Your task to perform on an android device: Set an alarm for 7pm Image 0: 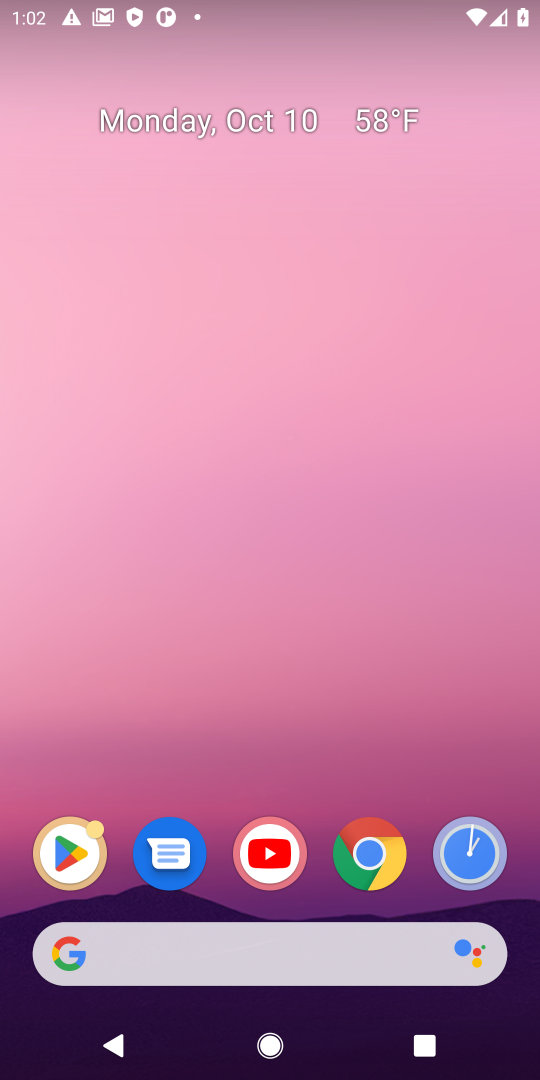
Step 0: drag from (270, 932) to (44, 17)
Your task to perform on an android device: Set an alarm for 7pm Image 1: 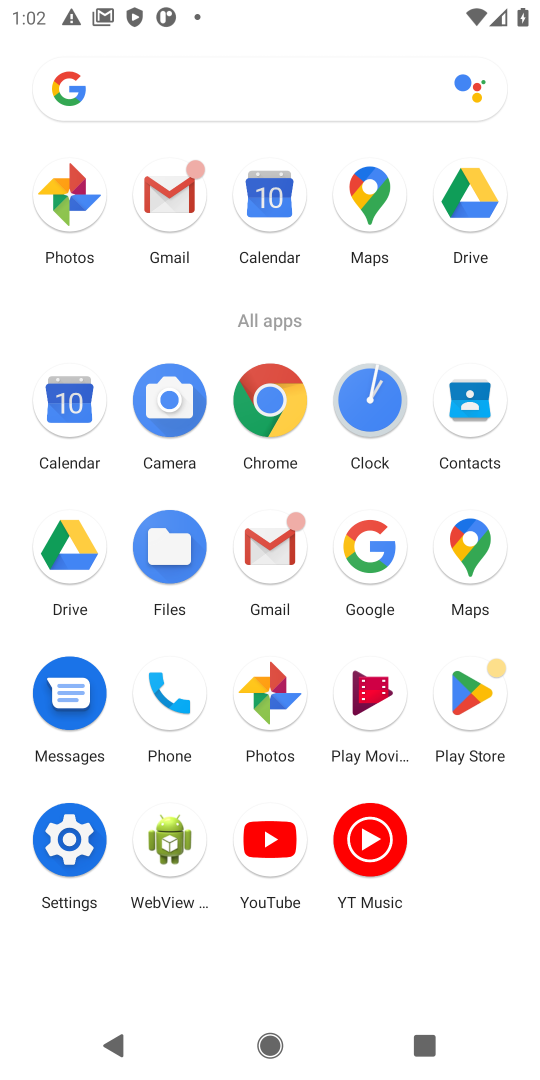
Step 1: click (381, 405)
Your task to perform on an android device: Set an alarm for 7pm Image 2: 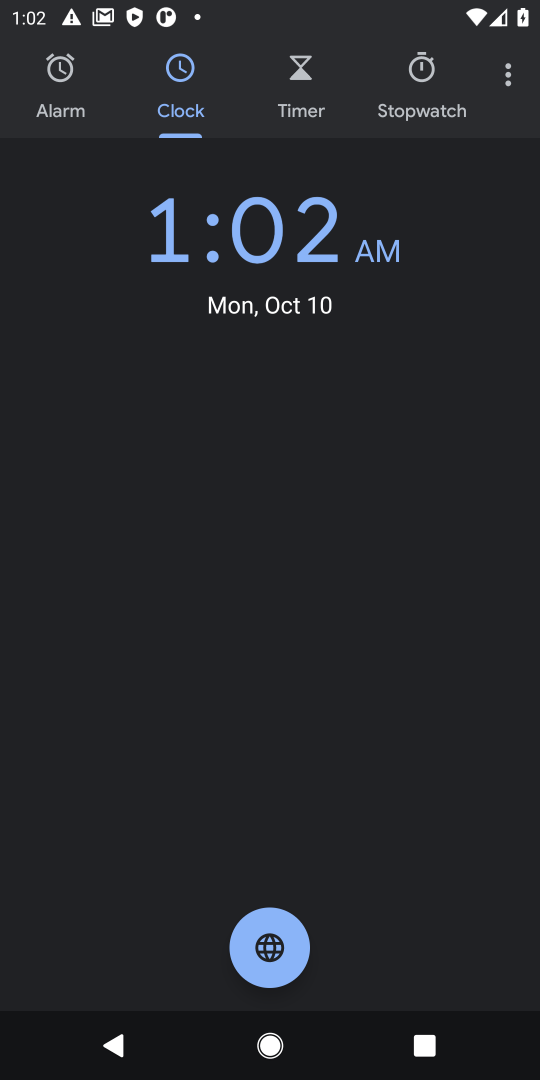
Step 2: click (58, 78)
Your task to perform on an android device: Set an alarm for 7pm Image 3: 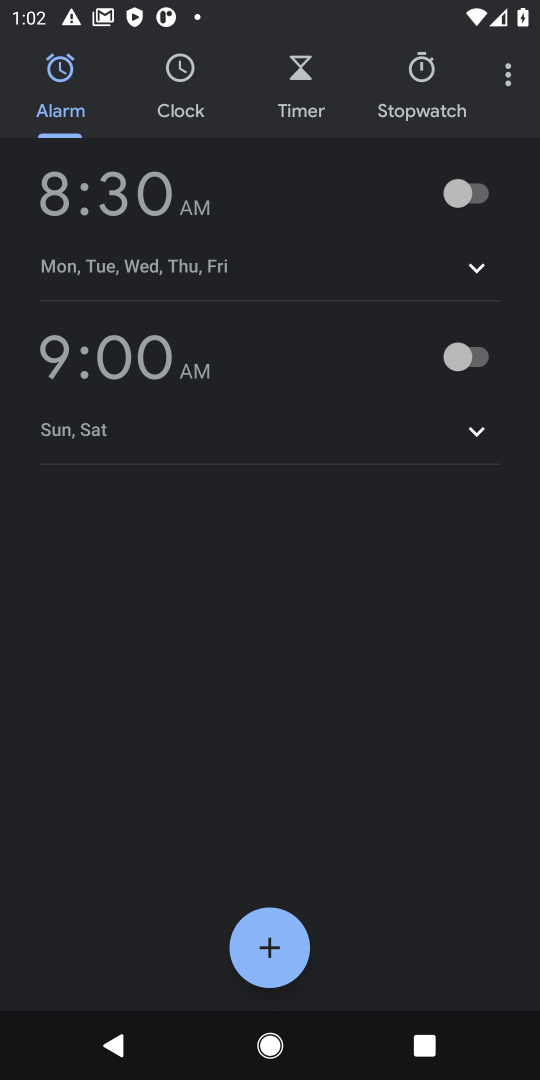
Step 3: click (260, 971)
Your task to perform on an android device: Set an alarm for 7pm Image 4: 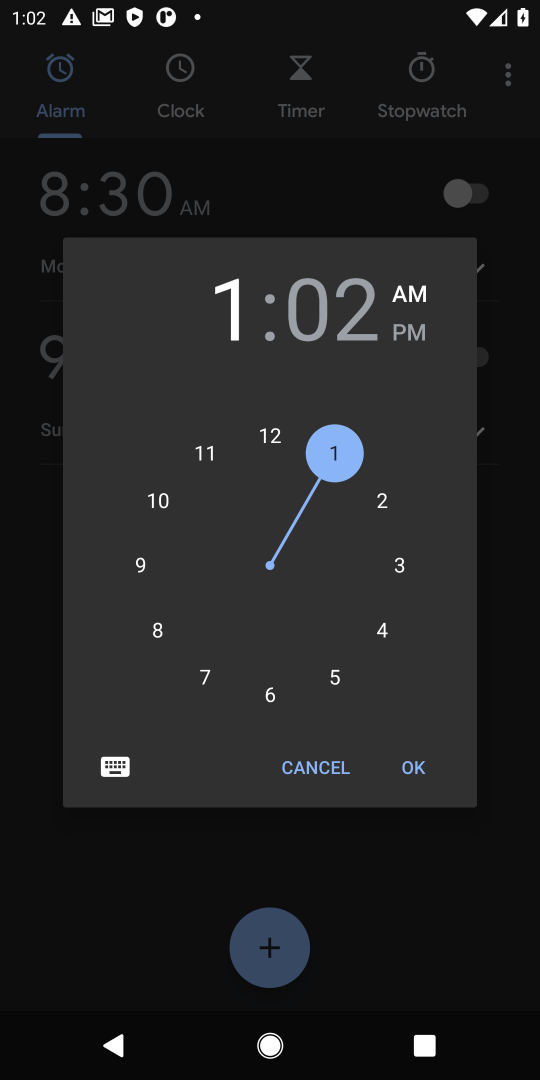
Step 4: click (209, 673)
Your task to perform on an android device: Set an alarm for 7pm Image 5: 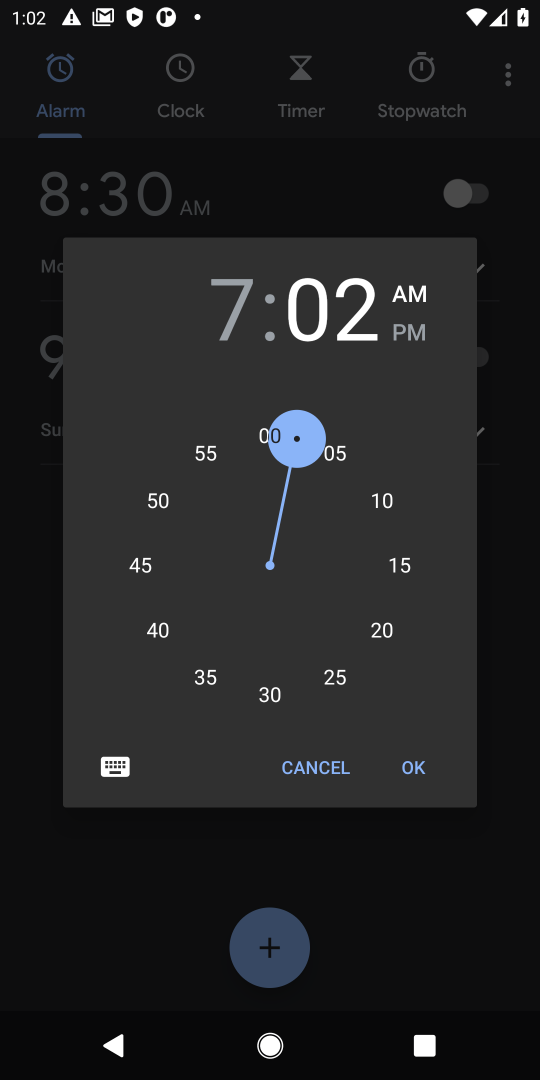
Step 5: click (267, 454)
Your task to perform on an android device: Set an alarm for 7pm Image 6: 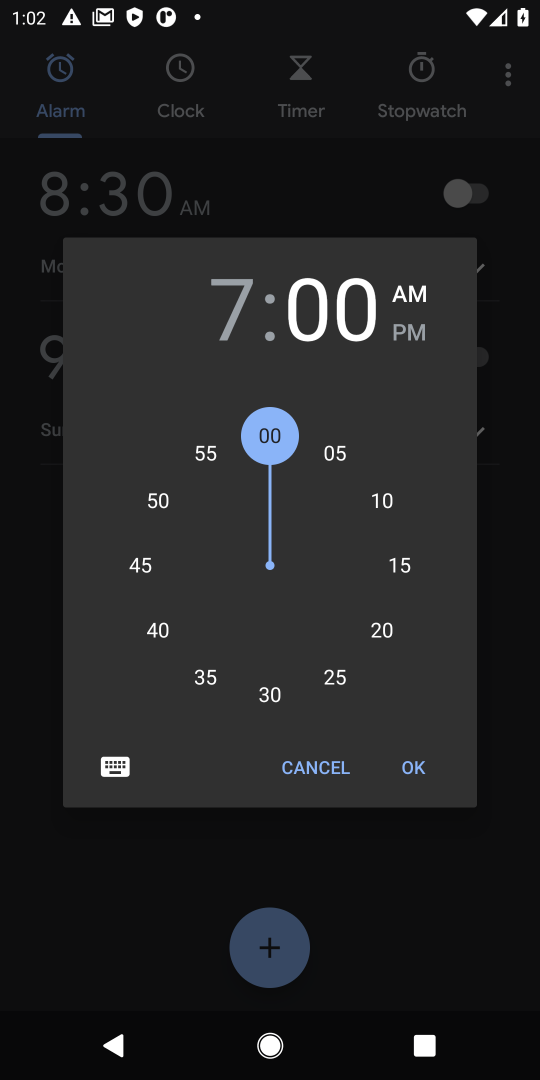
Step 6: click (410, 772)
Your task to perform on an android device: Set an alarm for 7pm Image 7: 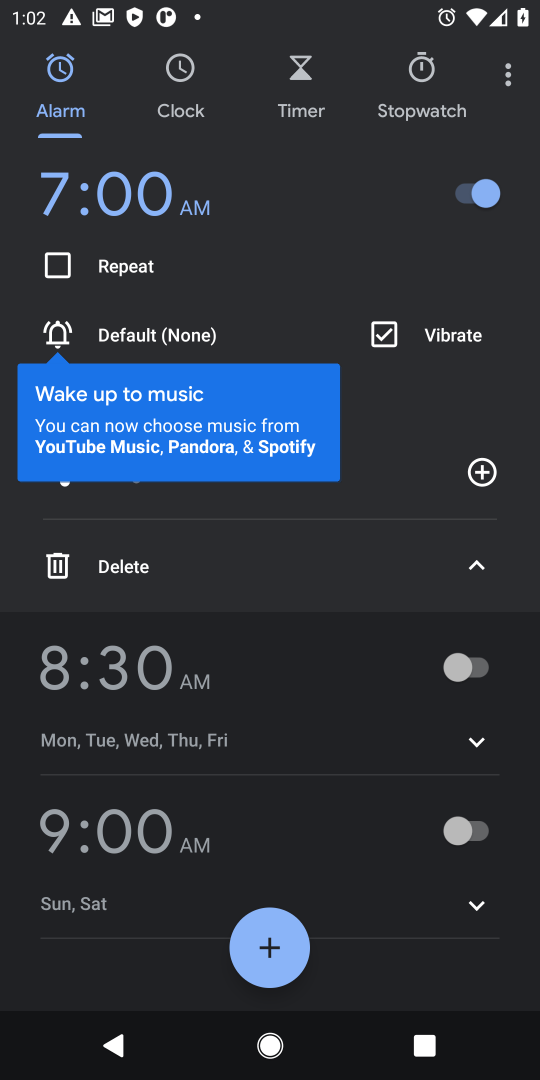
Step 7: task complete